Your task to perform on an android device: Open the map Image 0: 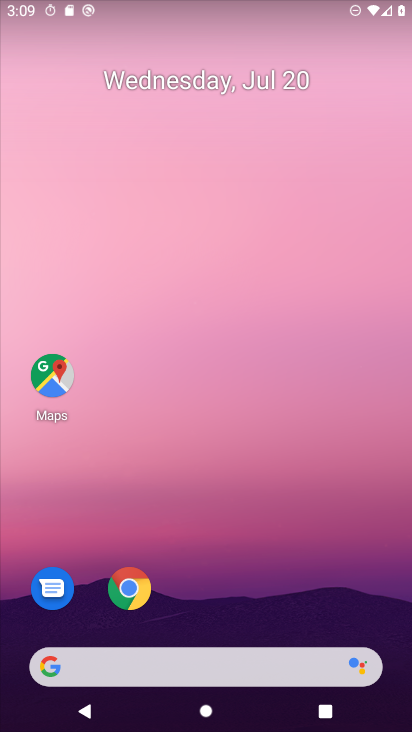
Step 0: click (54, 370)
Your task to perform on an android device: Open the map Image 1: 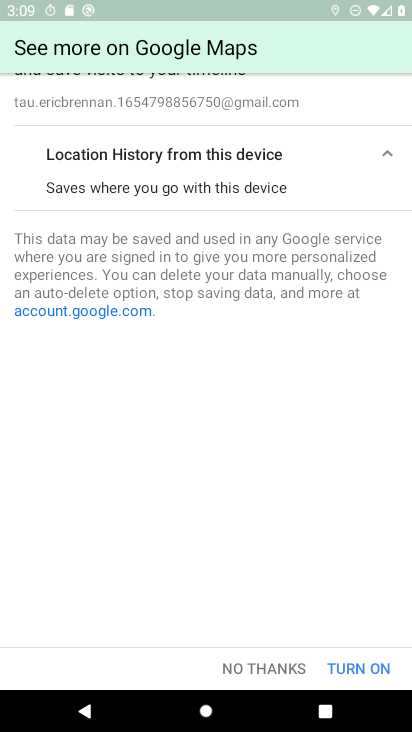
Step 1: task complete